Your task to perform on an android device: Open Google Maps Image 0: 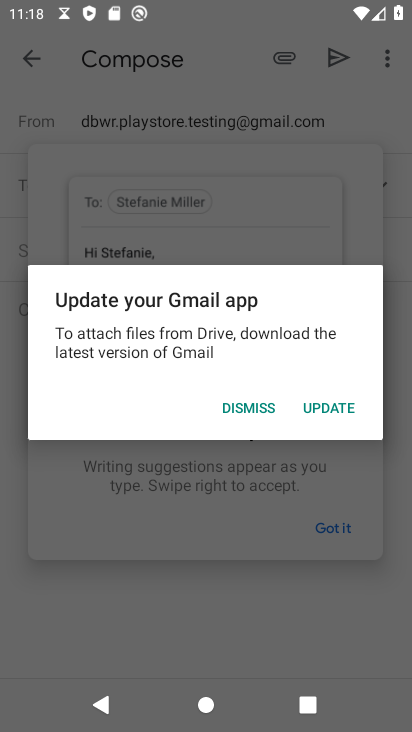
Step 0: press home button
Your task to perform on an android device: Open Google Maps Image 1: 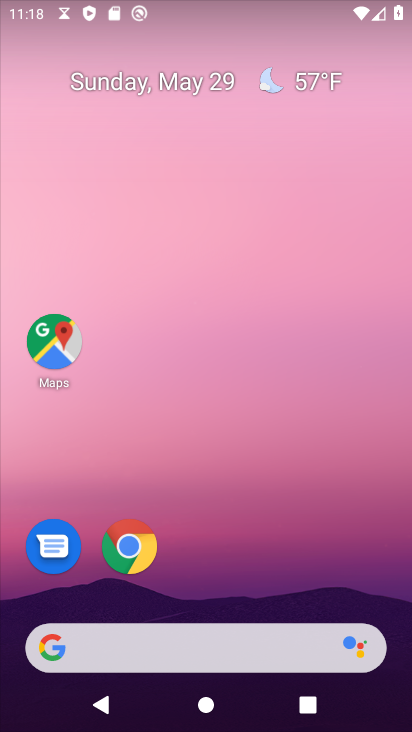
Step 1: click (53, 355)
Your task to perform on an android device: Open Google Maps Image 2: 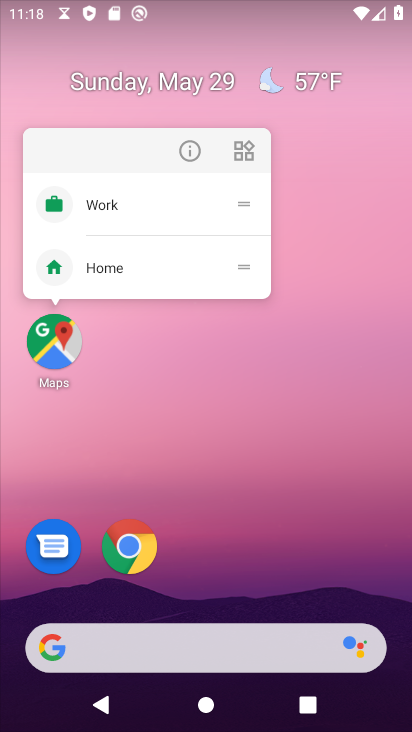
Step 2: click (46, 350)
Your task to perform on an android device: Open Google Maps Image 3: 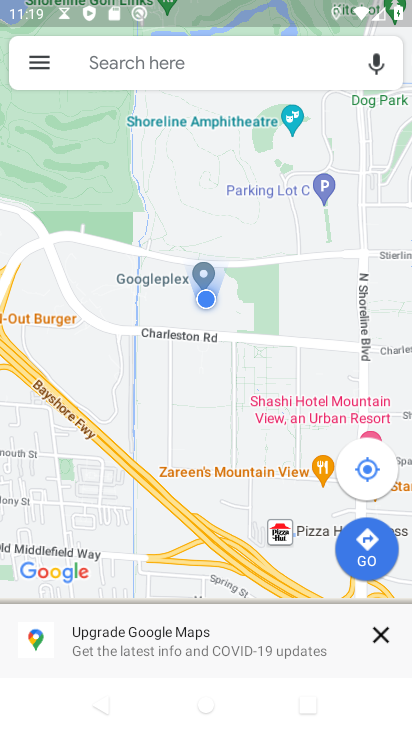
Step 3: task complete